Your task to perform on an android device: Open settings Image 0: 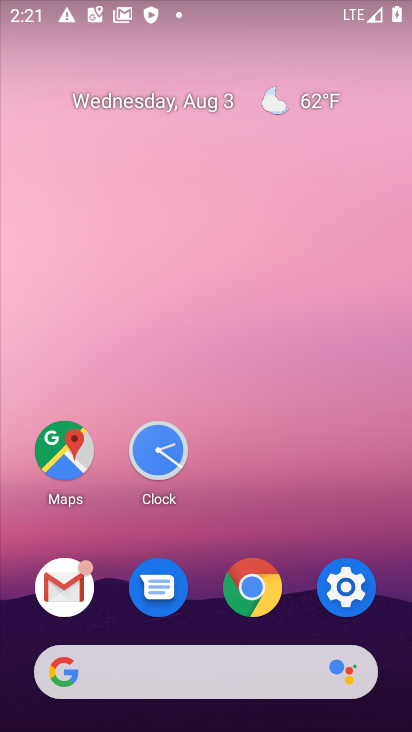
Step 0: click (343, 588)
Your task to perform on an android device: Open settings Image 1: 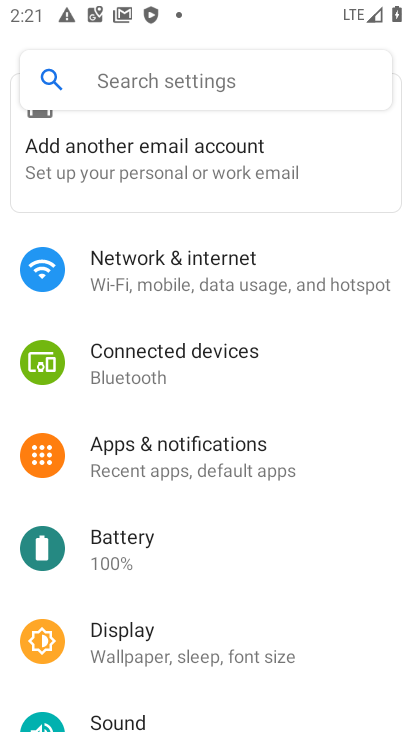
Step 1: task complete